Your task to perform on an android device: turn on data saver in the chrome app Image 0: 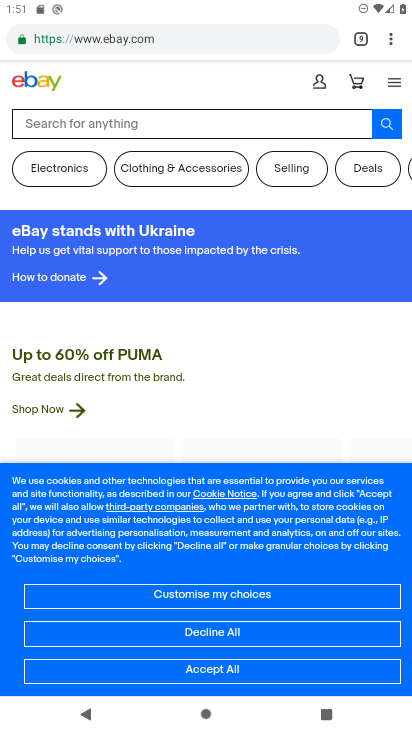
Step 0: click (387, 41)
Your task to perform on an android device: turn on data saver in the chrome app Image 1: 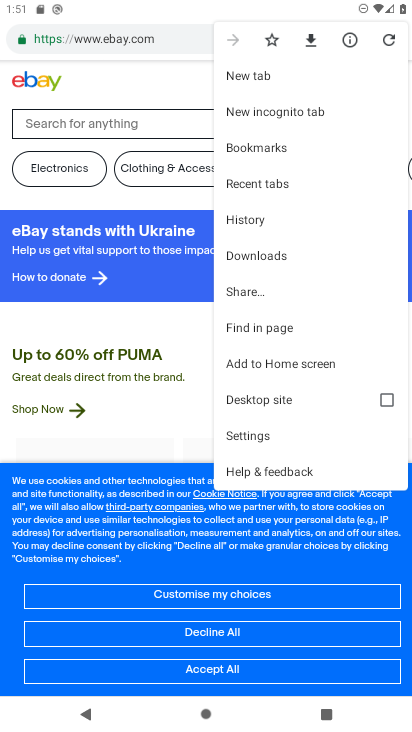
Step 1: click (257, 428)
Your task to perform on an android device: turn on data saver in the chrome app Image 2: 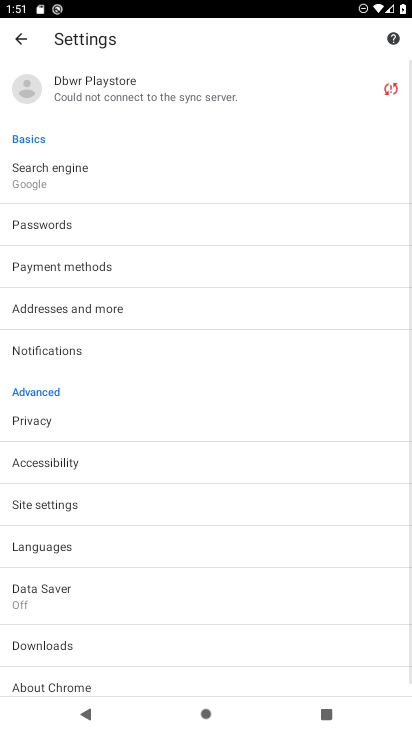
Step 2: click (78, 589)
Your task to perform on an android device: turn on data saver in the chrome app Image 3: 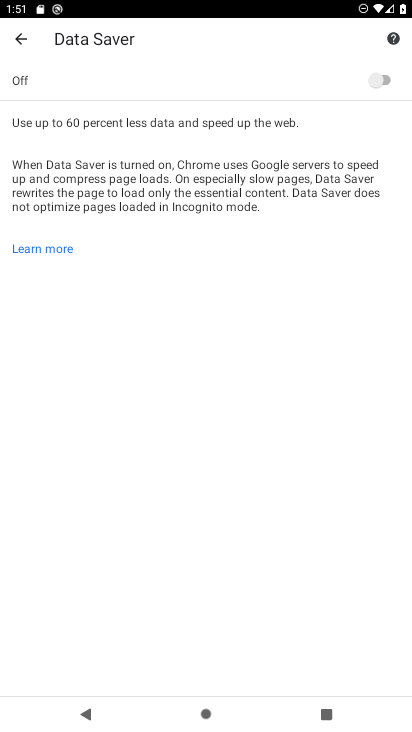
Step 3: click (375, 80)
Your task to perform on an android device: turn on data saver in the chrome app Image 4: 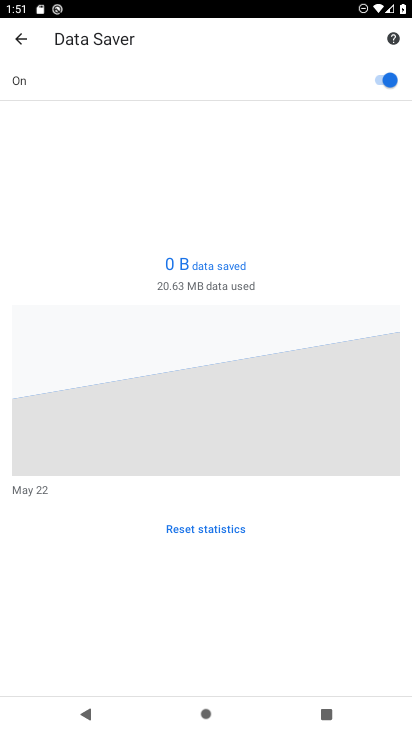
Step 4: task complete